Your task to perform on an android device: turn off location history Image 0: 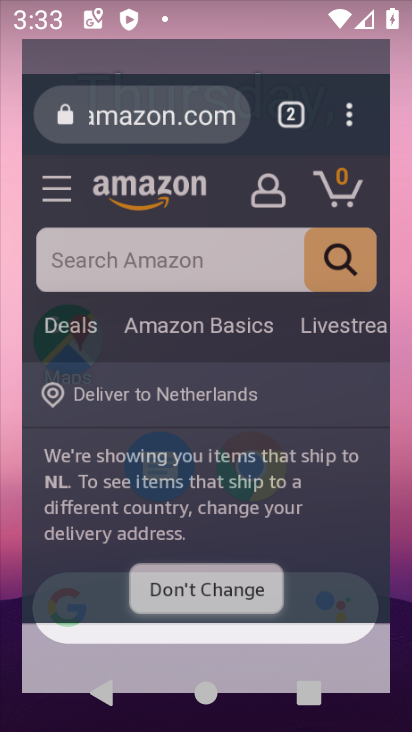
Step 0: press home button
Your task to perform on an android device: turn off location history Image 1: 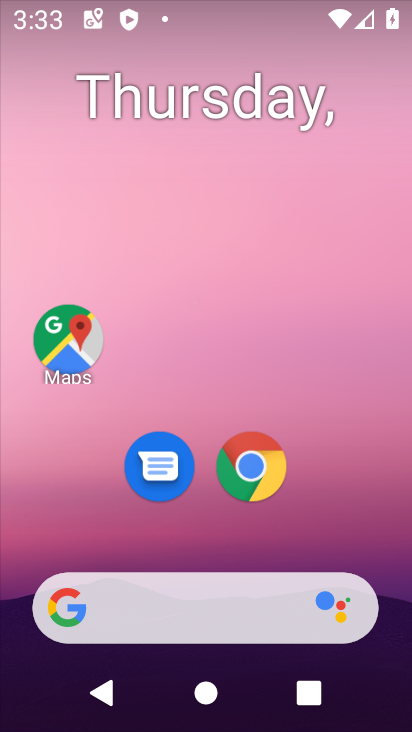
Step 1: drag from (269, 532) to (347, 2)
Your task to perform on an android device: turn off location history Image 2: 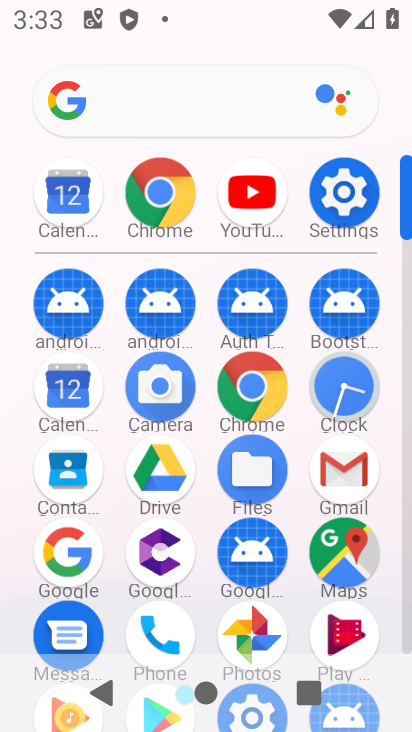
Step 2: click (238, 380)
Your task to perform on an android device: turn off location history Image 3: 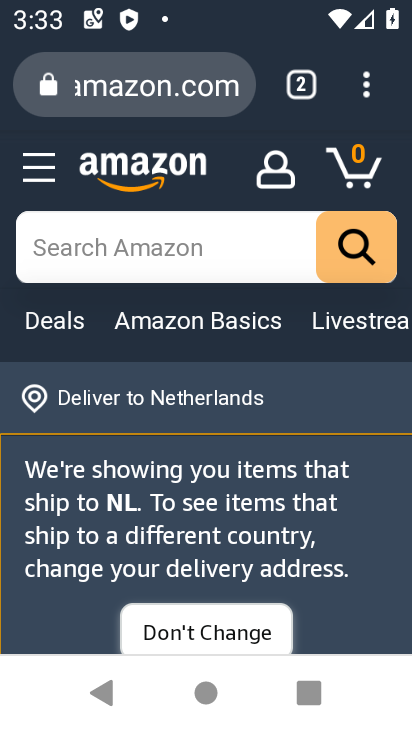
Step 3: press home button
Your task to perform on an android device: turn off location history Image 4: 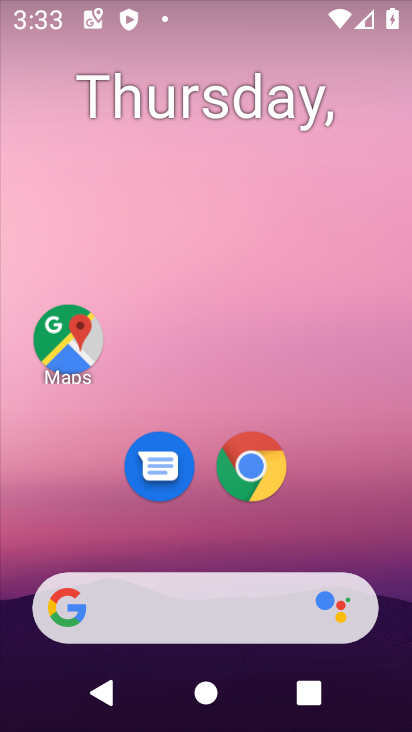
Step 4: drag from (184, 581) to (277, 0)
Your task to perform on an android device: turn off location history Image 5: 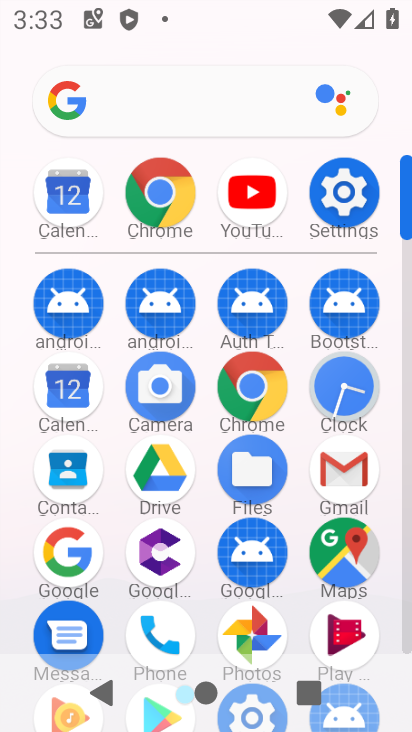
Step 5: click (352, 186)
Your task to perform on an android device: turn off location history Image 6: 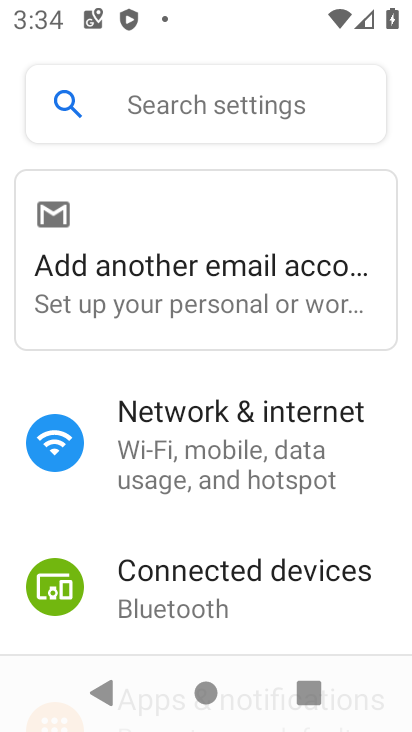
Step 6: drag from (154, 588) to (276, 28)
Your task to perform on an android device: turn off location history Image 7: 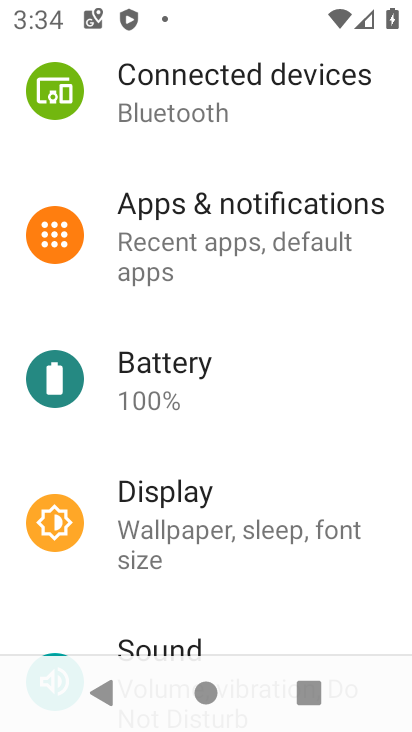
Step 7: drag from (227, 592) to (294, 158)
Your task to perform on an android device: turn off location history Image 8: 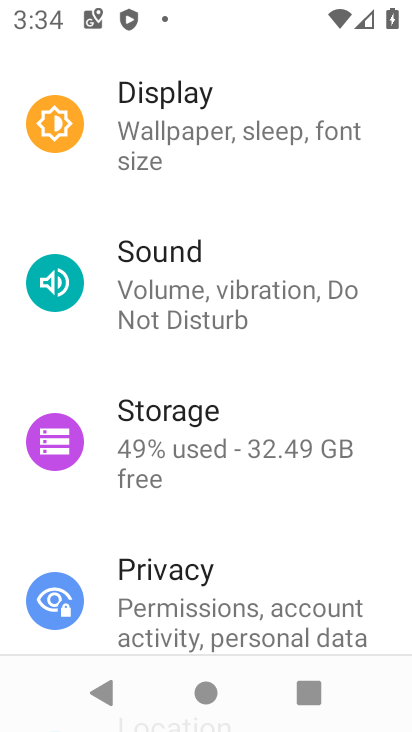
Step 8: drag from (265, 611) to (278, 163)
Your task to perform on an android device: turn off location history Image 9: 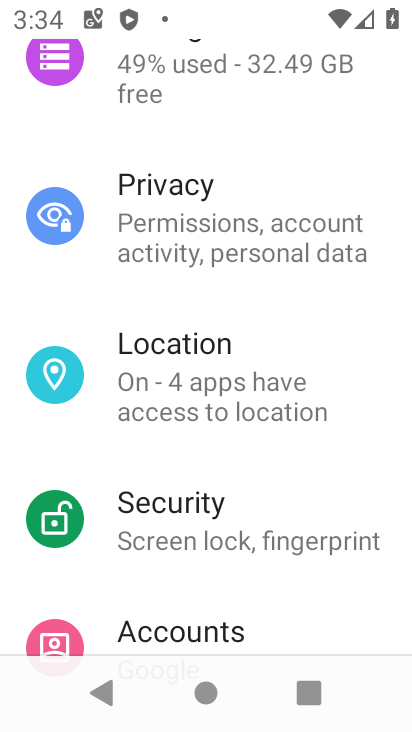
Step 9: click (296, 405)
Your task to perform on an android device: turn off location history Image 10: 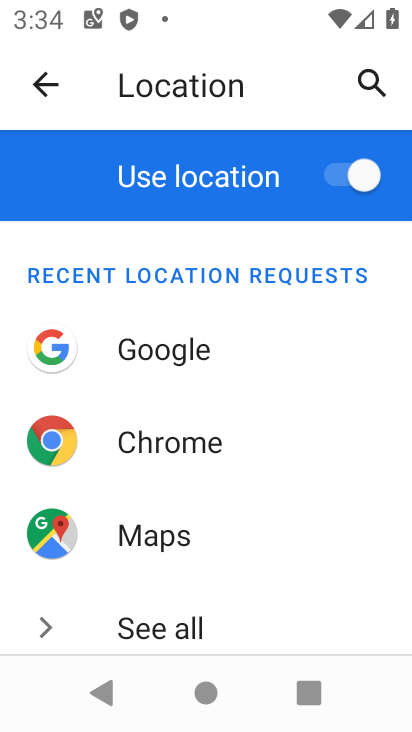
Step 10: drag from (379, 544) to (342, 159)
Your task to perform on an android device: turn off location history Image 11: 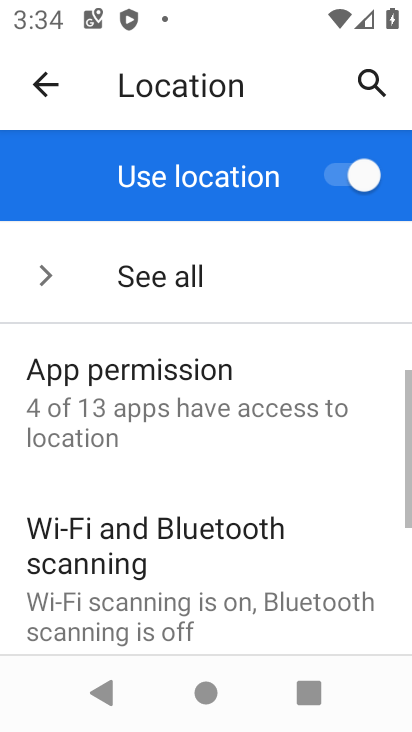
Step 11: drag from (289, 665) to (333, 125)
Your task to perform on an android device: turn off location history Image 12: 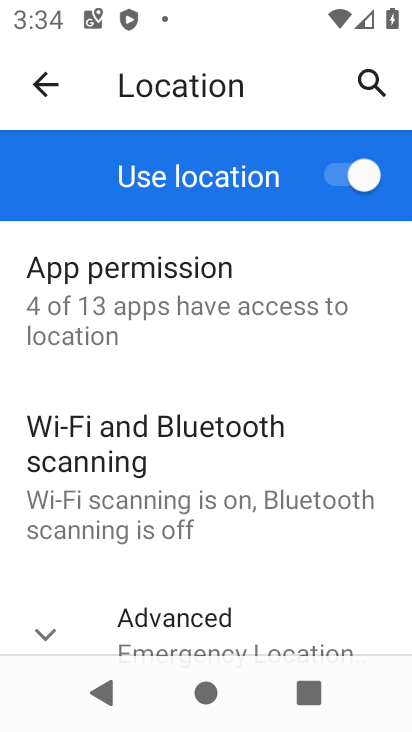
Step 12: click (262, 631)
Your task to perform on an android device: turn off location history Image 13: 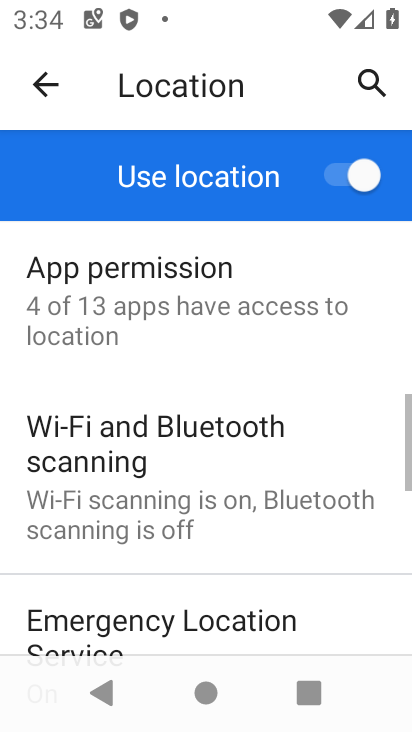
Step 13: drag from (275, 621) to (275, 185)
Your task to perform on an android device: turn off location history Image 14: 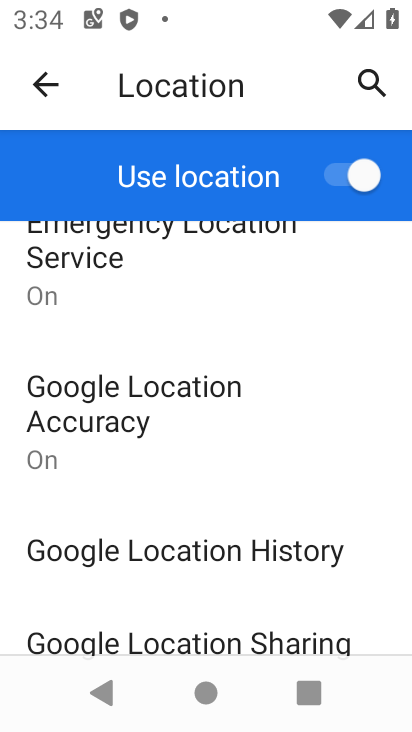
Step 14: click (279, 558)
Your task to perform on an android device: turn off location history Image 15: 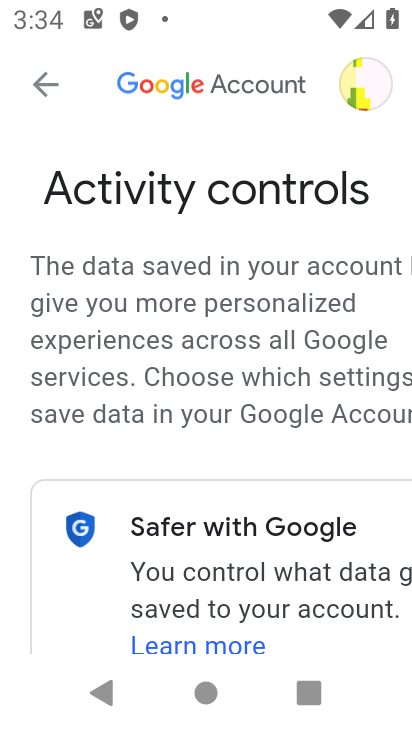
Step 15: drag from (257, 632) to (244, 125)
Your task to perform on an android device: turn off location history Image 16: 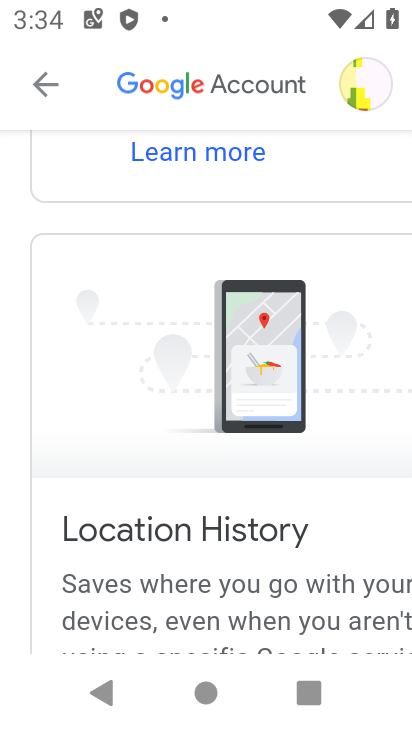
Step 16: drag from (379, 606) to (183, 110)
Your task to perform on an android device: turn off location history Image 17: 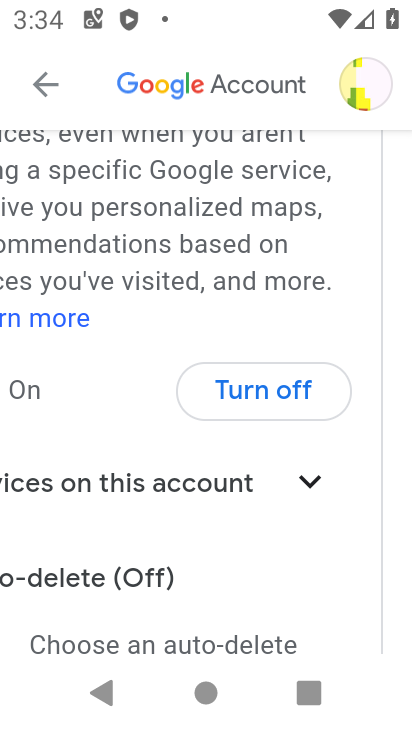
Step 17: click (266, 383)
Your task to perform on an android device: turn off location history Image 18: 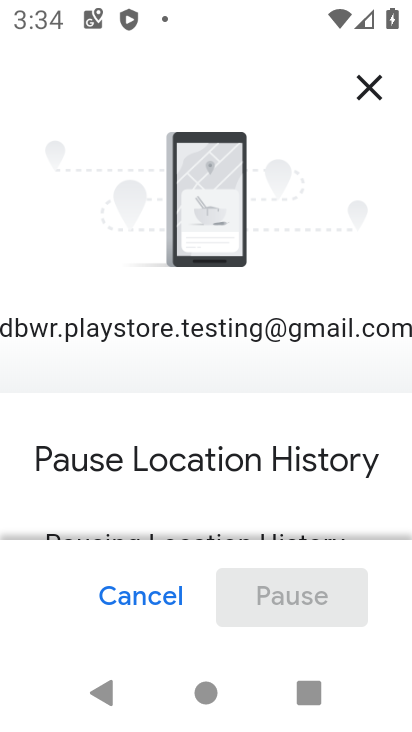
Step 18: drag from (328, 528) to (317, 3)
Your task to perform on an android device: turn off location history Image 19: 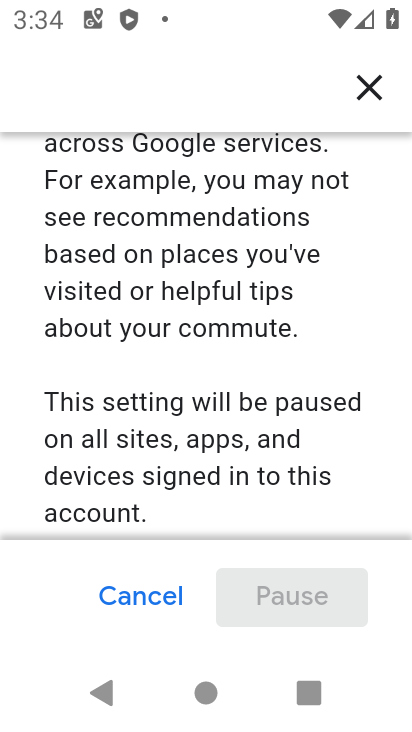
Step 19: drag from (250, 520) to (268, 141)
Your task to perform on an android device: turn off location history Image 20: 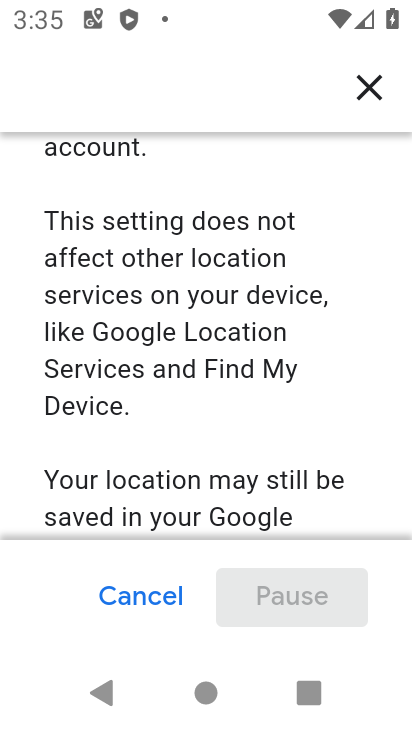
Step 20: drag from (254, 494) to (244, 7)
Your task to perform on an android device: turn off location history Image 21: 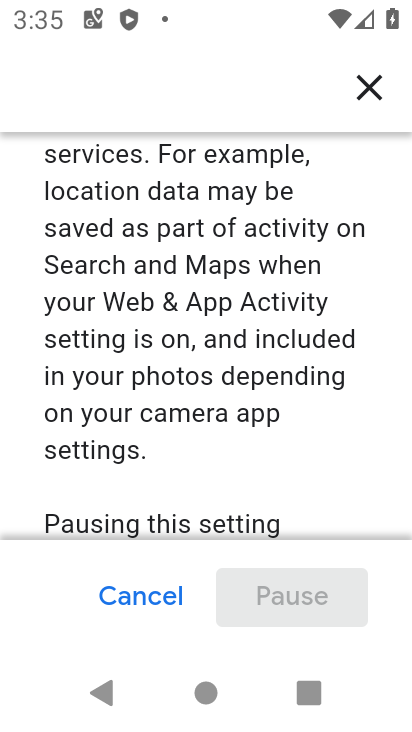
Step 21: drag from (319, 493) to (315, 51)
Your task to perform on an android device: turn off location history Image 22: 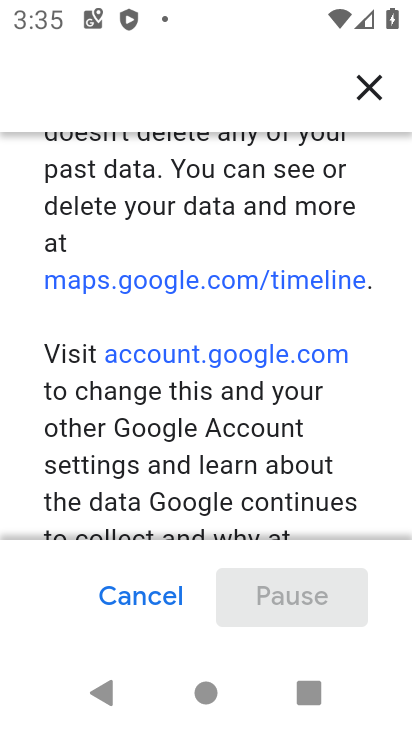
Step 22: drag from (311, 519) to (291, 134)
Your task to perform on an android device: turn off location history Image 23: 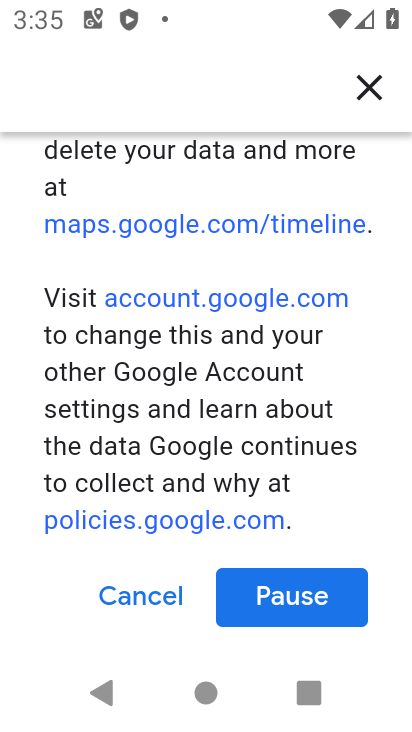
Step 23: click (332, 607)
Your task to perform on an android device: turn off location history Image 24: 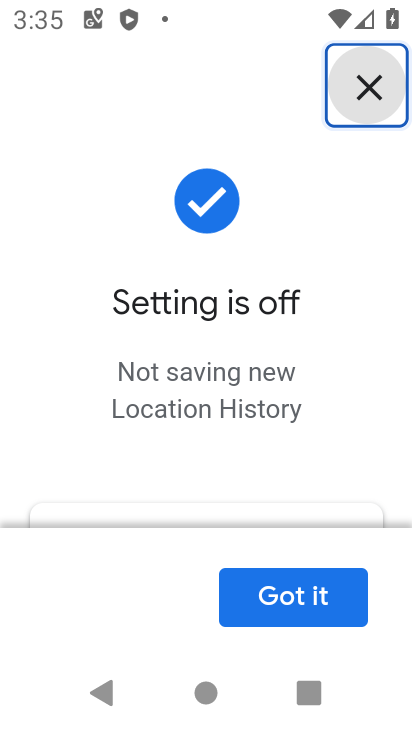
Step 24: task complete